Your task to perform on an android device: Check the news Image 0: 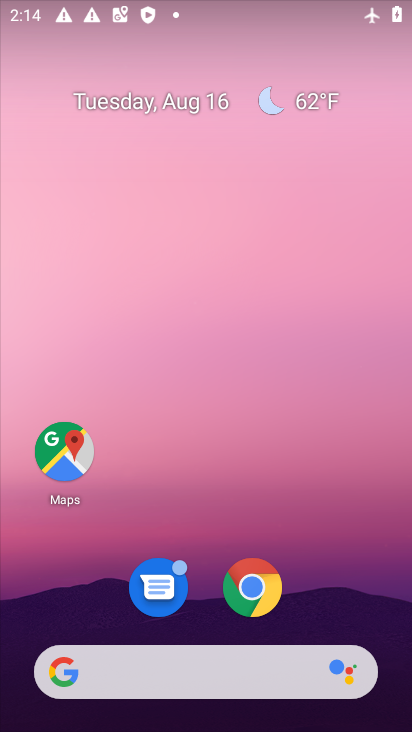
Step 0: click (170, 684)
Your task to perform on an android device: Check the news Image 1: 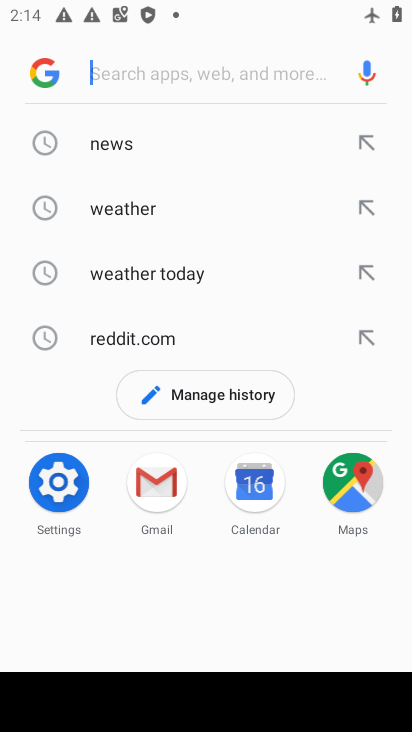
Step 1: click (130, 144)
Your task to perform on an android device: Check the news Image 2: 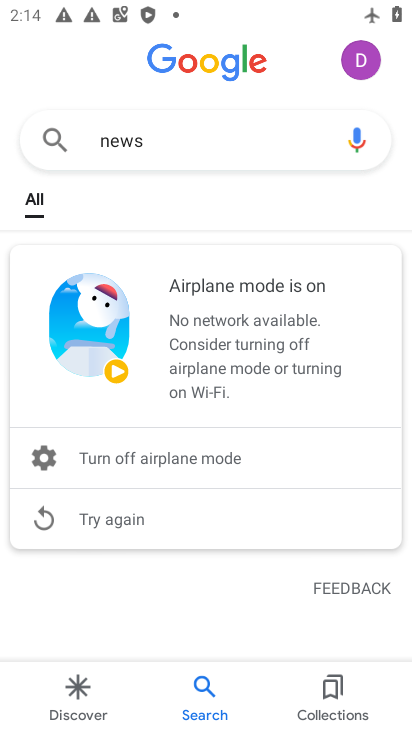
Step 2: drag from (375, 6) to (315, 497)
Your task to perform on an android device: Check the news Image 3: 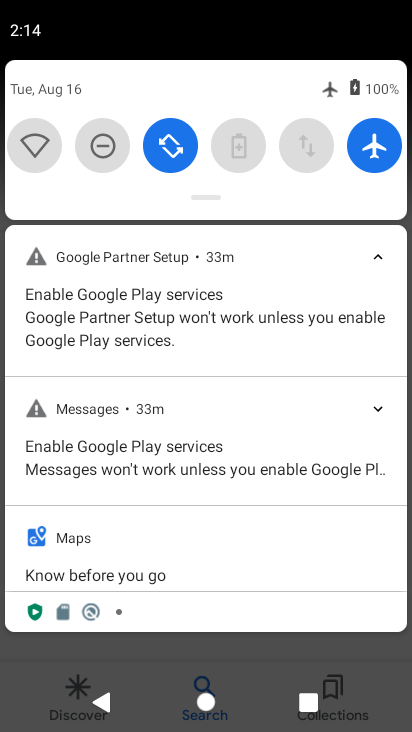
Step 3: click (373, 150)
Your task to perform on an android device: Check the news Image 4: 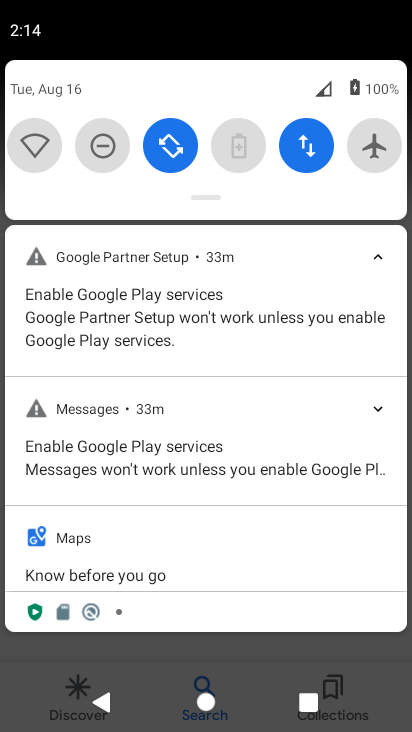
Step 4: click (176, 653)
Your task to perform on an android device: Check the news Image 5: 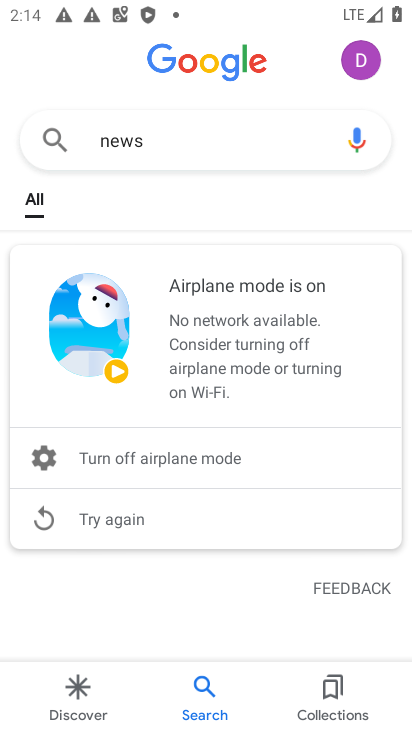
Step 5: click (88, 523)
Your task to perform on an android device: Check the news Image 6: 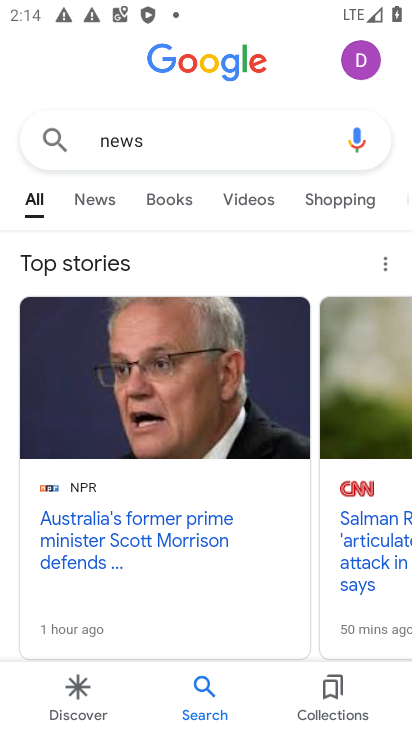
Step 6: task complete